Your task to perform on an android device: open a bookmark in the chrome app Image 0: 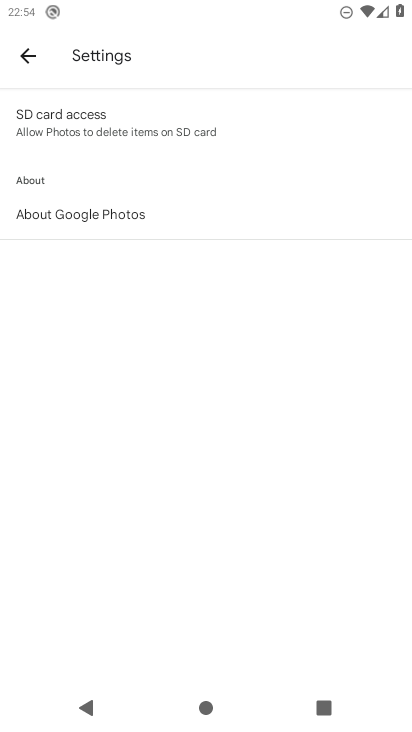
Step 0: press home button
Your task to perform on an android device: open a bookmark in the chrome app Image 1: 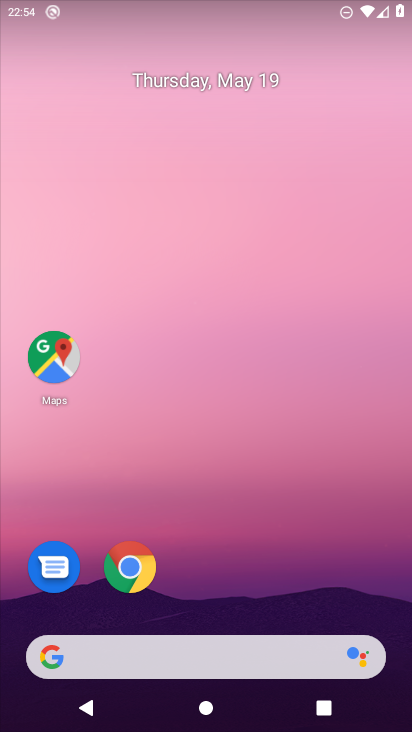
Step 1: click (127, 563)
Your task to perform on an android device: open a bookmark in the chrome app Image 2: 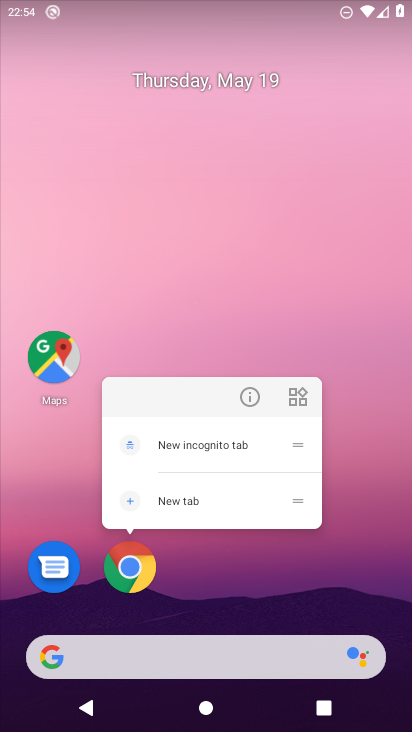
Step 2: click (127, 562)
Your task to perform on an android device: open a bookmark in the chrome app Image 3: 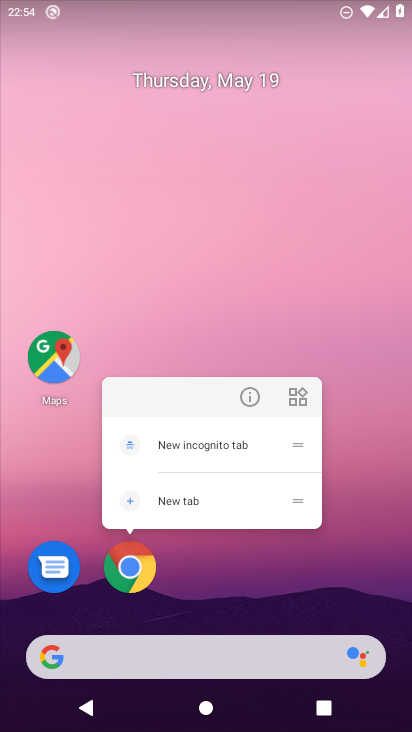
Step 3: click (127, 561)
Your task to perform on an android device: open a bookmark in the chrome app Image 4: 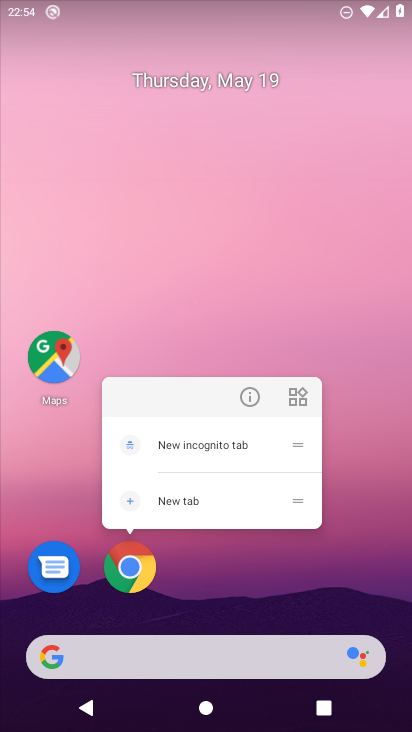
Step 4: click (127, 561)
Your task to perform on an android device: open a bookmark in the chrome app Image 5: 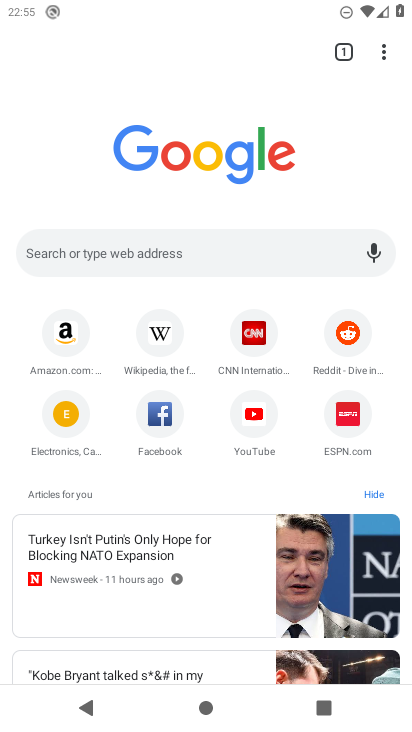
Step 5: click (385, 47)
Your task to perform on an android device: open a bookmark in the chrome app Image 6: 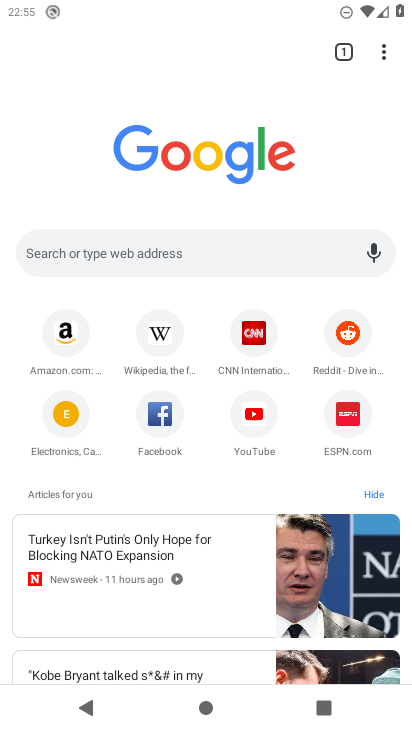
Step 6: click (385, 46)
Your task to perform on an android device: open a bookmark in the chrome app Image 7: 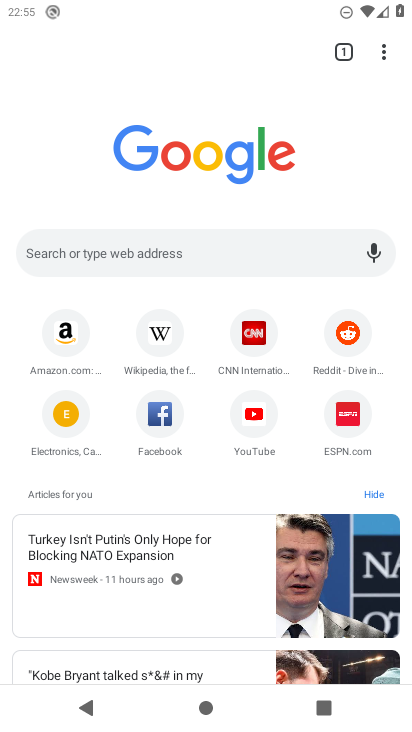
Step 7: click (385, 46)
Your task to perform on an android device: open a bookmark in the chrome app Image 8: 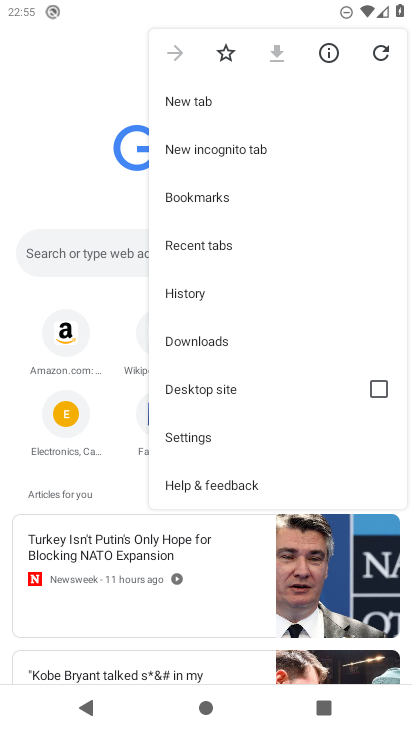
Step 8: click (233, 191)
Your task to perform on an android device: open a bookmark in the chrome app Image 9: 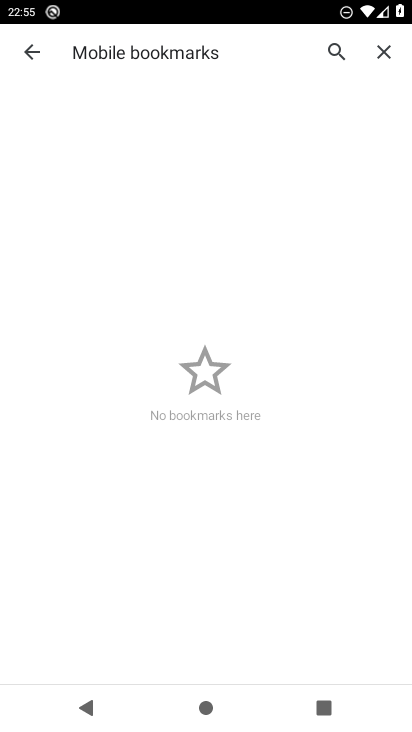
Step 9: task complete